Your task to perform on an android device: Go to Reddit.com Image 0: 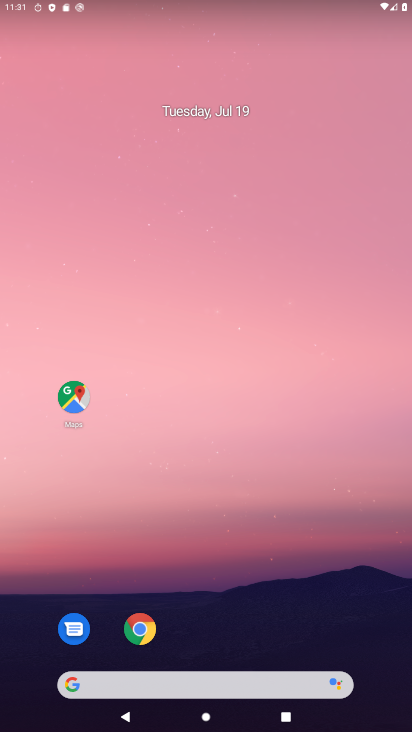
Step 0: drag from (267, 504) to (191, 10)
Your task to perform on an android device: Go to Reddit.com Image 1: 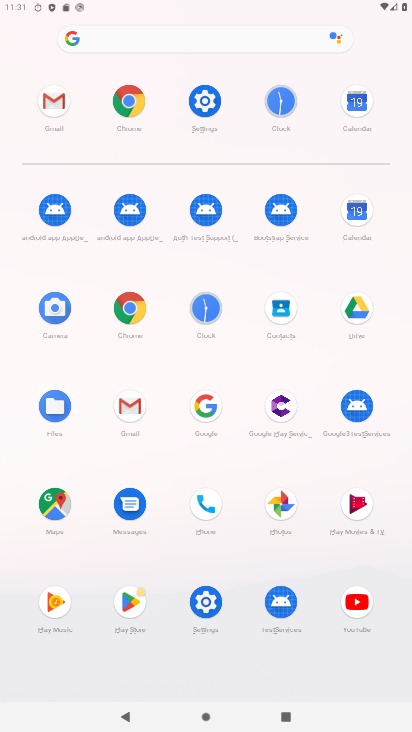
Step 1: click (128, 110)
Your task to perform on an android device: Go to Reddit.com Image 2: 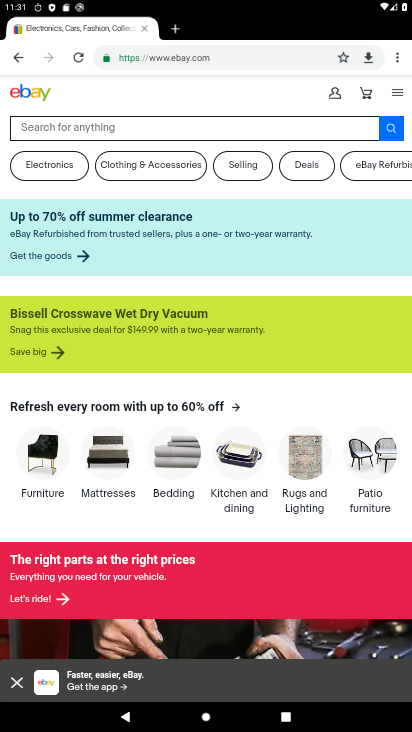
Step 2: click (18, 62)
Your task to perform on an android device: Go to Reddit.com Image 3: 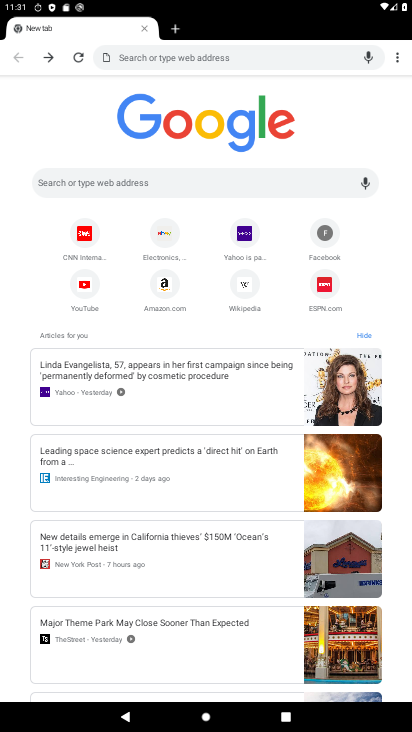
Step 3: click (191, 172)
Your task to perform on an android device: Go to Reddit.com Image 4: 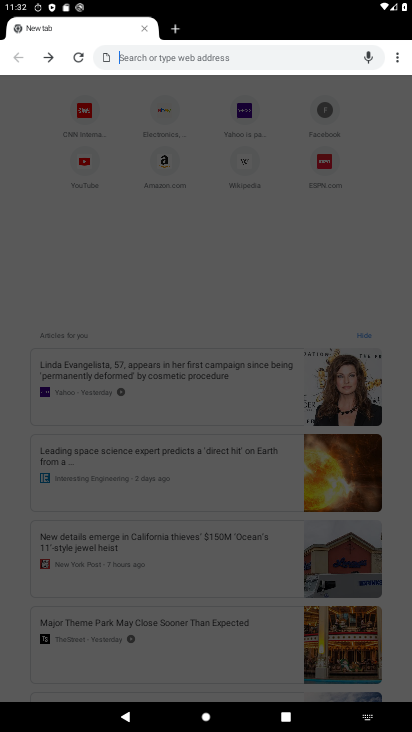
Step 4: type "Reddit.com"
Your task to perform on an android device: Go to Reddit.com Image 5: 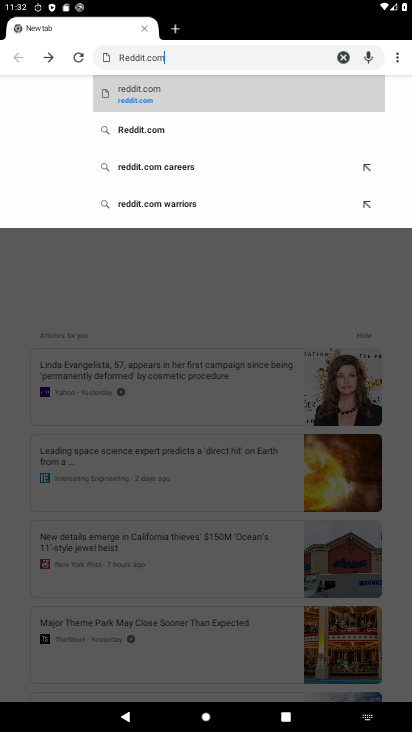
Step 5: press enter
Your task to perform on an android device: Go to Reddit.com Image 6: 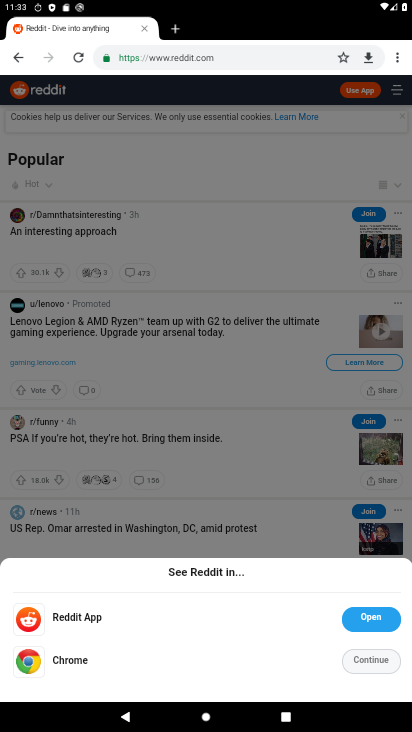
Step 6: click (178, 38)
Your task to perform on an android device: Go to Reddit.com Image 7: 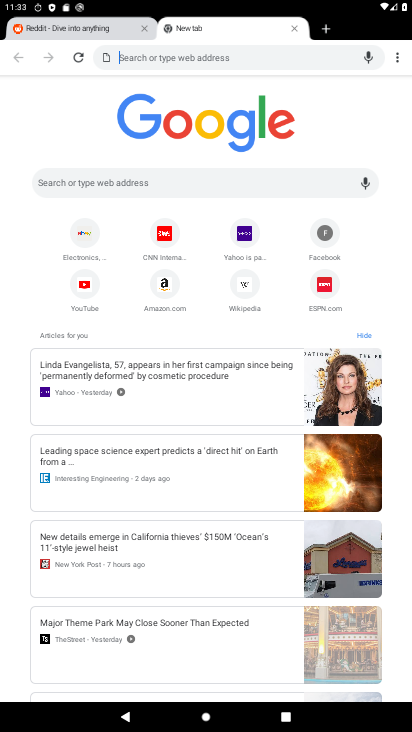
Step 7: click (177, 34)
Your task to perform on an android device: Go to Reddit.com Image 8: 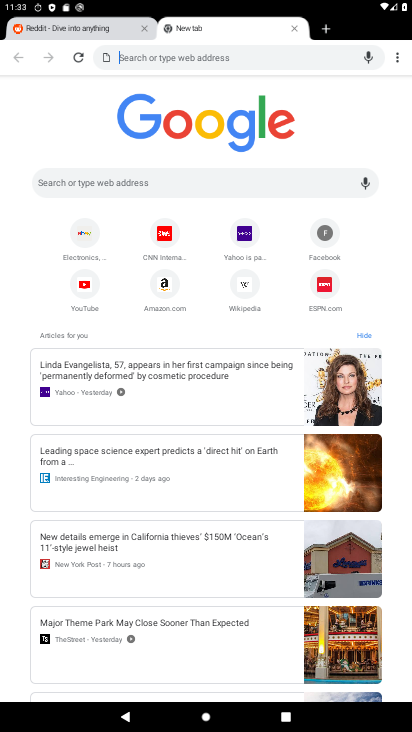
Step 8: type "Reddit.com"
Your task to perform on an android device: Go to Reddit.com Image 9: 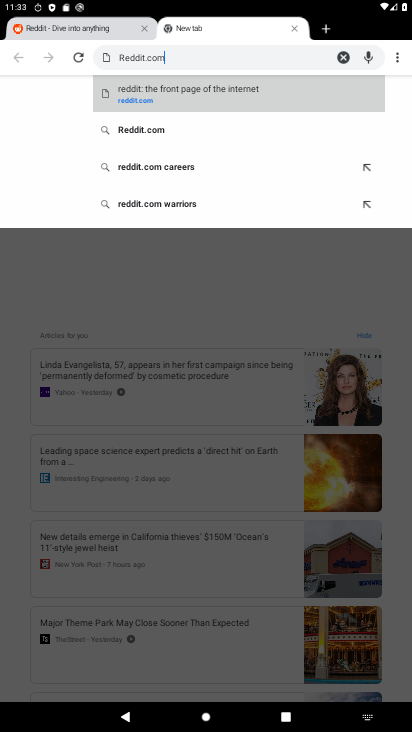
Step 9: press enter
Your task to perform on an android device: Go to Reddit.com Image 10: 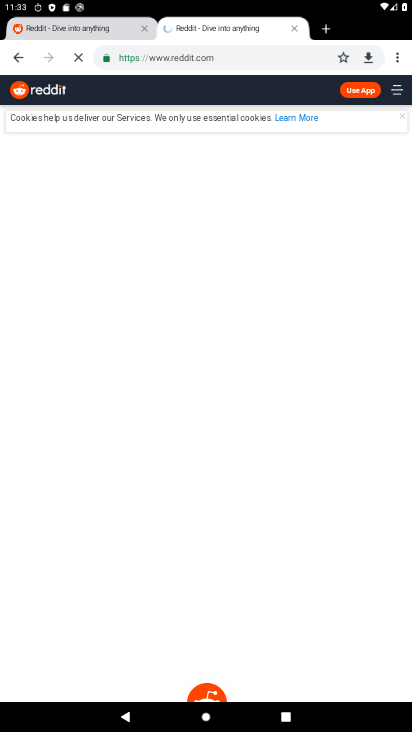
Step 10: task complete